Your task to perform on an android device: Open calendar and show me the third week of next month Image 0: 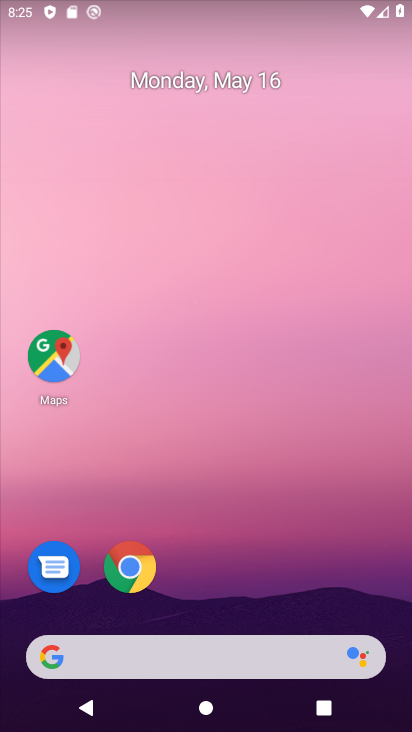
Step 0: drag from (258, 580) to (225, 170)
Your task to perform on an android device: Open calendar and show me the third week of next month Image 1: 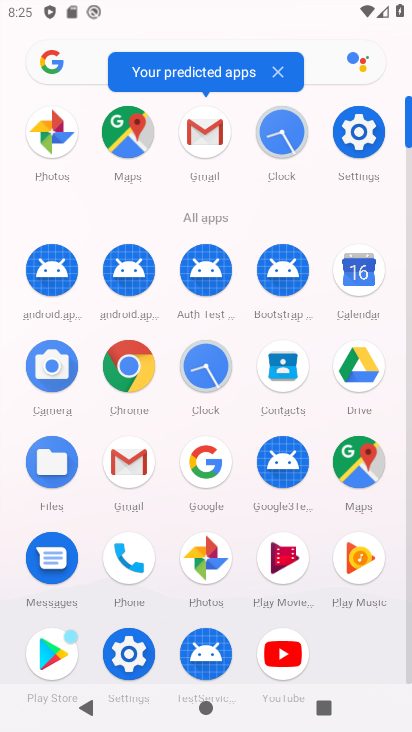
Step 1: click (367, 270)
Your task to perform on an android device: Open calendar and show me the third week of next month Image 2: 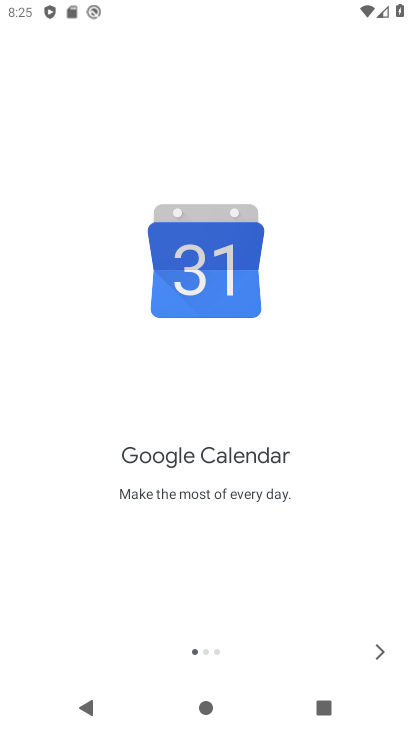
Step 2: click (376, 647)
Your task to perform on an android device: Open calendar and show me the third week of next month Image 3: 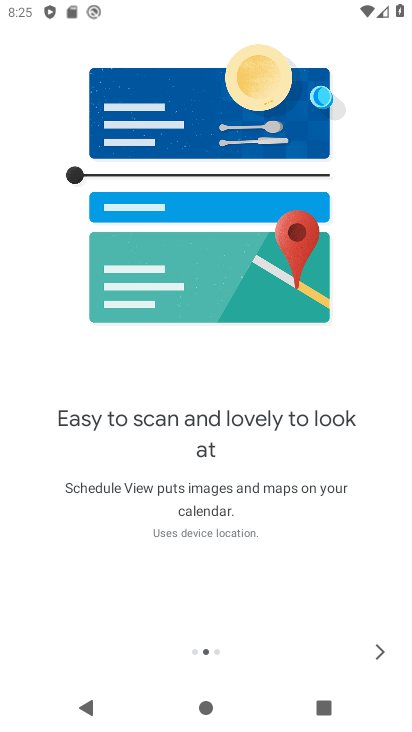
Step 3: click (376, 647)
Your task to perform on an android device: Open calendar and show me the third week of next month Image 4: 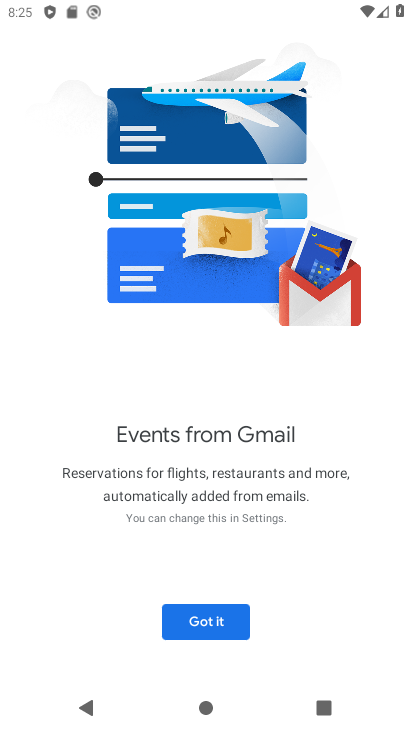
Step 4: click (228, 618)
Your task to perform on an android device: Open calendar and show me the third week of next month Image 5: 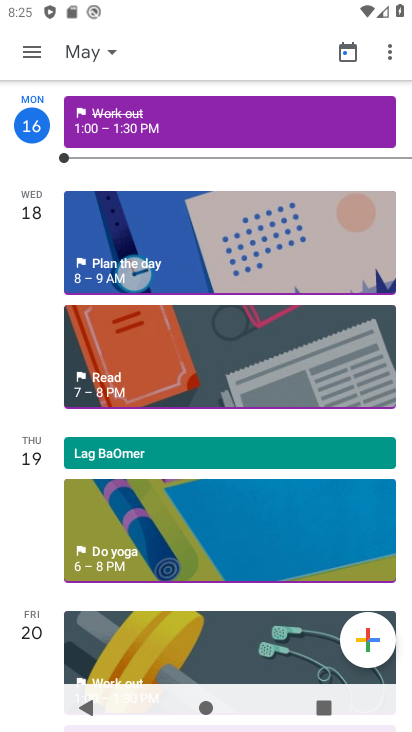
Step 5: click (42, 50)
Your task to perform on an android device: Open calendar and show me the third week of next month Image 6: 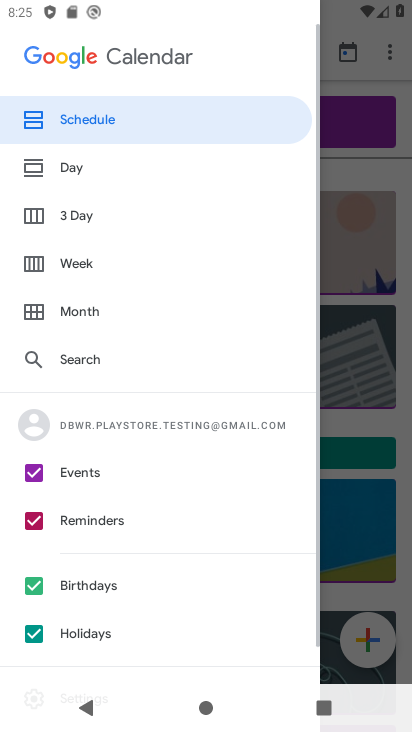
Step 6: click (129, 263)
Your task to perform on an android device: Open calendar and show me the third week of next month Image 7: 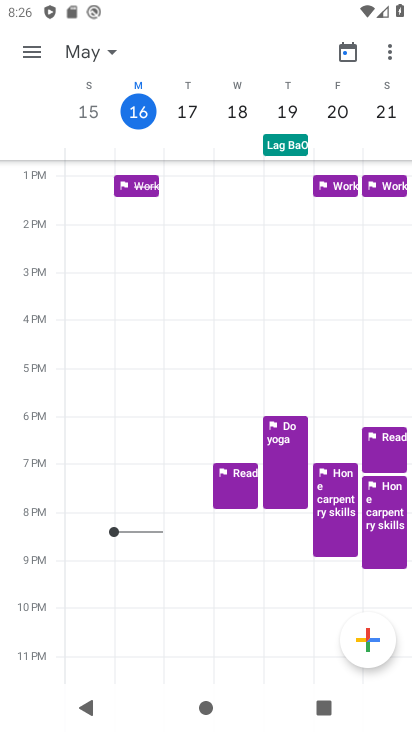
Step 7: click (89, 52)
Your task to perform on an android device: Open calendar and show me the third week of next month Image 8: 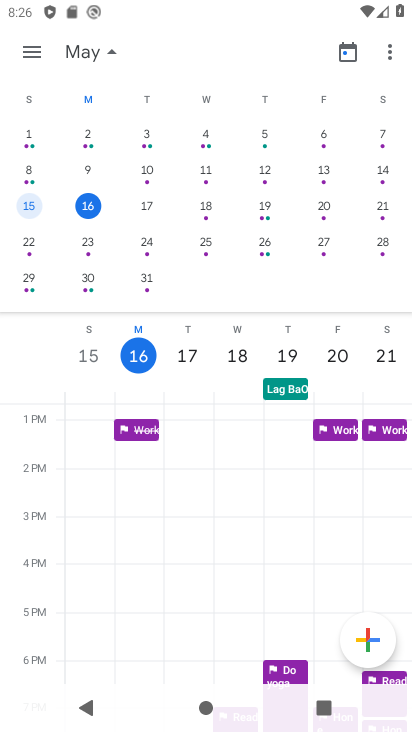
Step 8: drag from (386, 182) to (48, 175)
Your task to perform on an android device: Open calendar and show me the third week of next month Image 9: 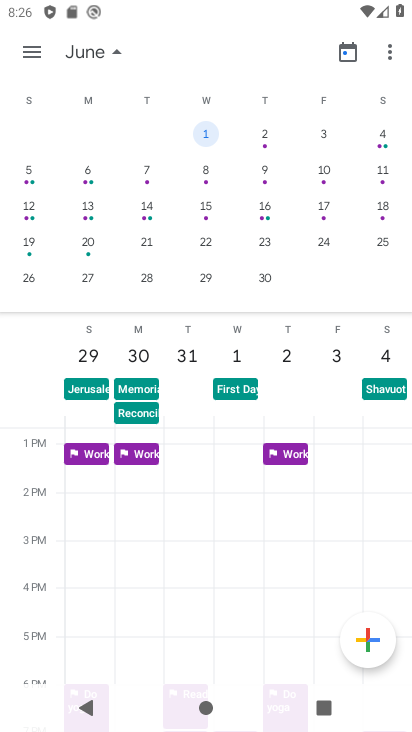
Step 9: click (151, 207)
Your task to perform on an android device: Open calendar and show me the third week of next month Image 10: 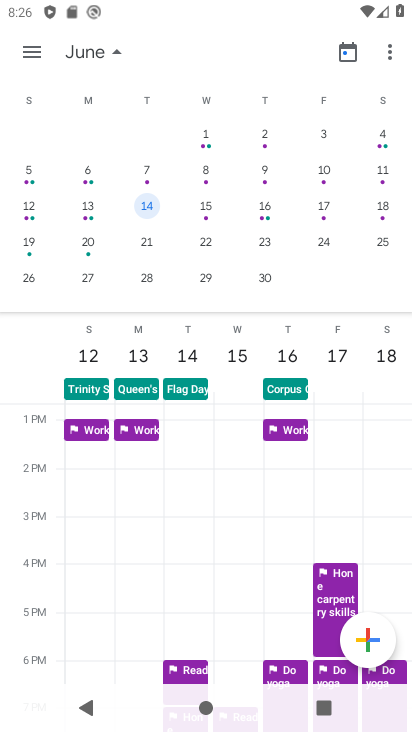
Step 10: click (107, 54)
Your task to perform on an android device: Open calendar and show me the third week of next month Image 11: 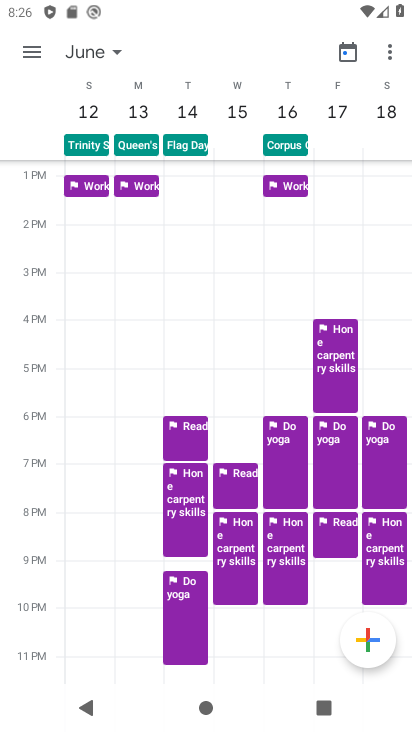
Step 11: task complete